Your task to perform on an android device: turn off notifications in google photos Image 0: 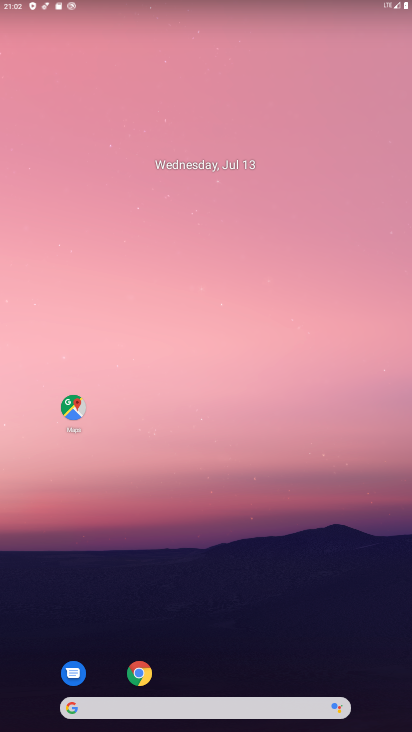
Step 0: drag from (188, 689) to (177, 82)
Your task to perform on an android device: turn off notifications in google photos Image 1: 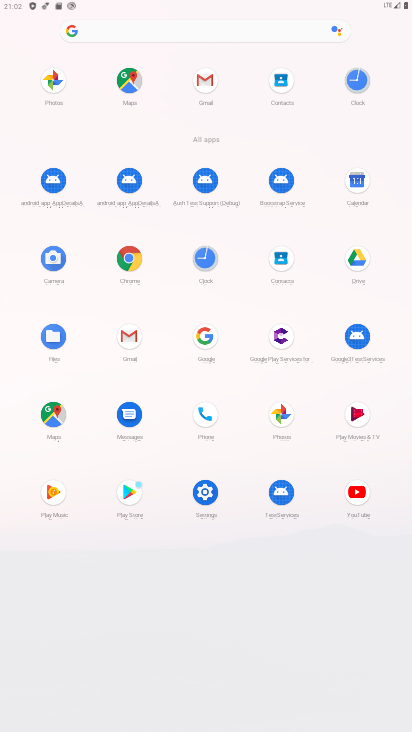
Step 1: click (208, 488)
Your task to perform on an android device: turn off notifications in google photos Image 2: 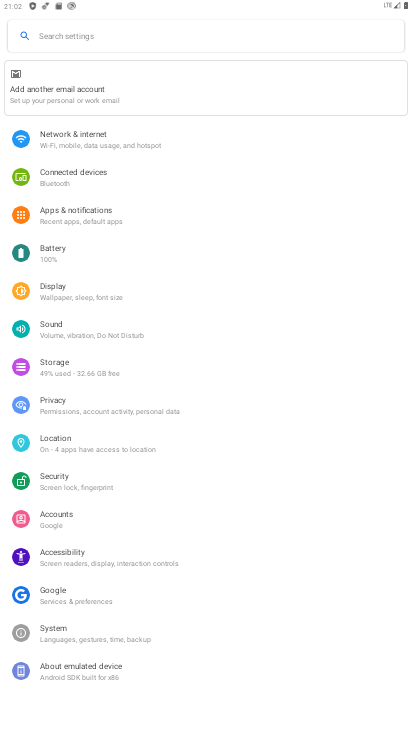
Step 2: click (194, 403)
Your task to perform on an android device: turn off notifications in google photos Image 3: 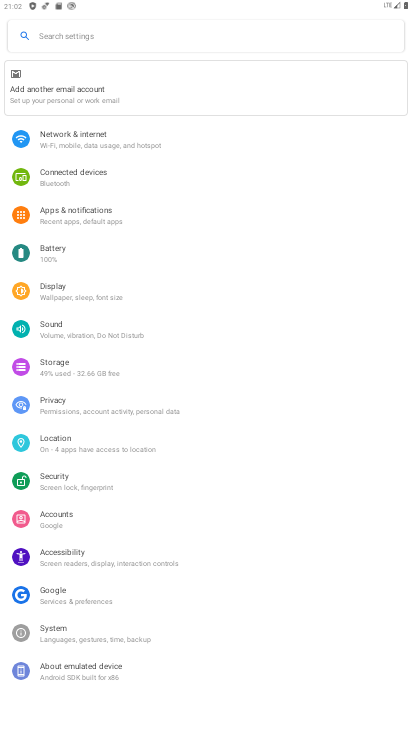
Step 3: drag from (160, 620) to (245, 290)
Your task to perform on an android device: turn off notifications in google photos Image 4: 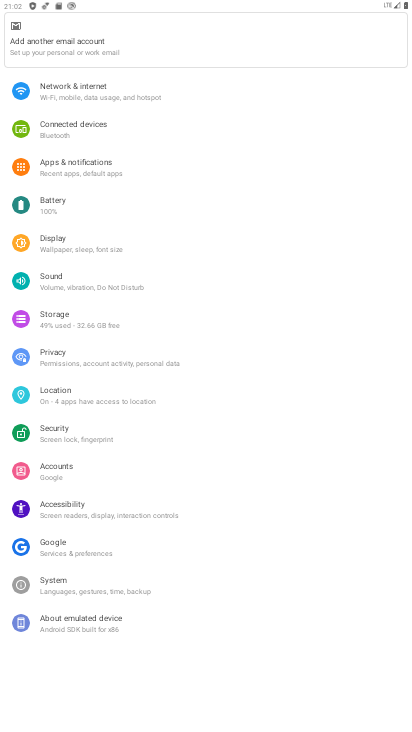
Step 4: drag from (192, 251) to (277, 716)
Your task to perform on an android device: turn off notifications in google photos Image 5: 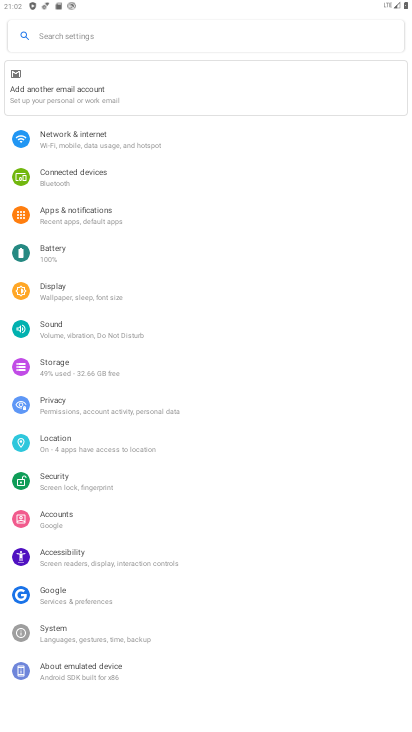
Step 5: drag from (200, 285) to (247, 683)
Your task to perform on an android device: turn off notifications in google photos Image 6: 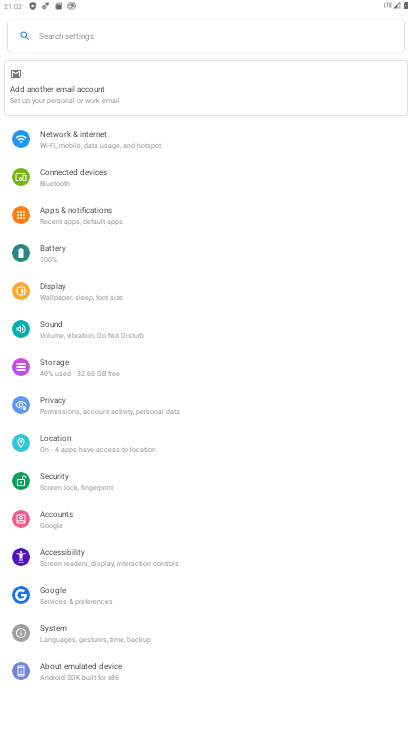
Step 6: press home button
Your task to perform on an android device: turn off notifications in google photos Image 7: 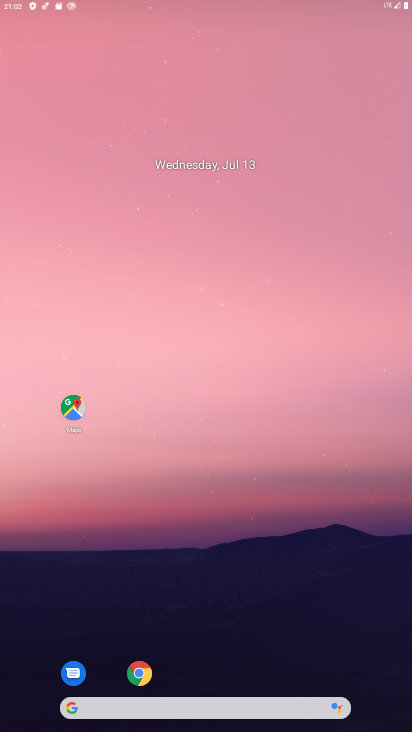
Step 7: drag from (226, 580) to (330, 193)
Your task to perform on an android device: turn off notifications in google photos Image 8: 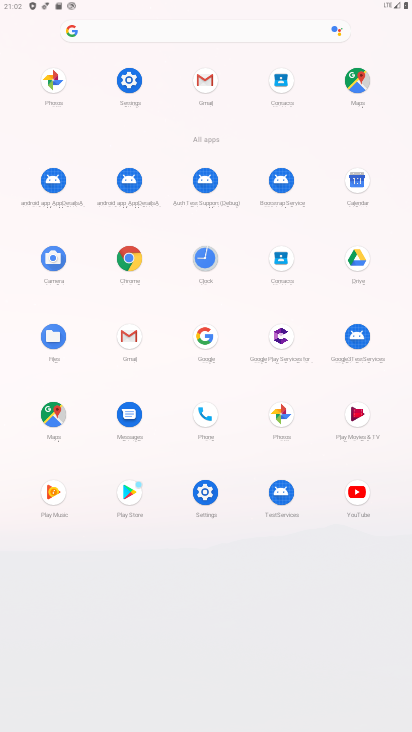
Step 8: click (277, 414)
Your task to perform on an android device: turn off notifications in google photos Image 9: 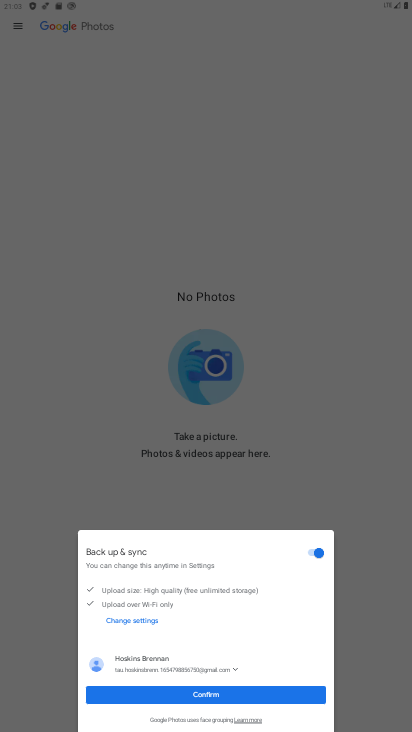
Step 9: click (198, 701)
Your task to perform on an android device: turn off notifications in google photos Image 10: 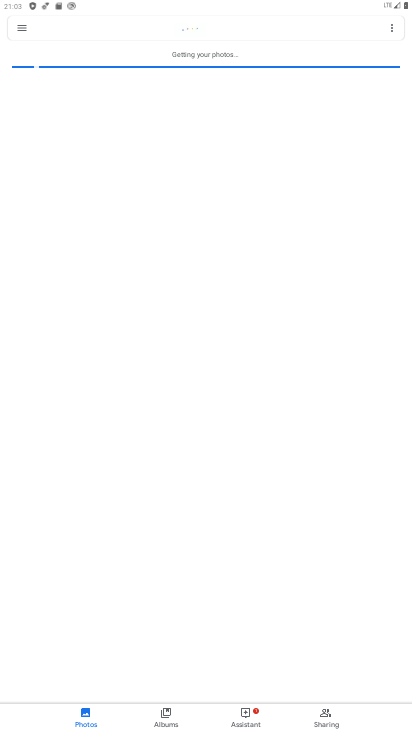
Step 10: click (25, 24)
Your task to perform on an android device: turn off notifications in google photos Image 11: 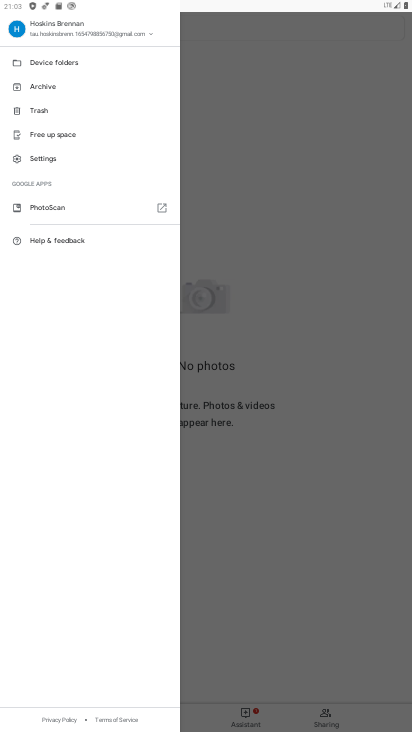
Step 11: click (50, 156)
Your task to perform on an android device: turn off notifications in google photos Image 12: 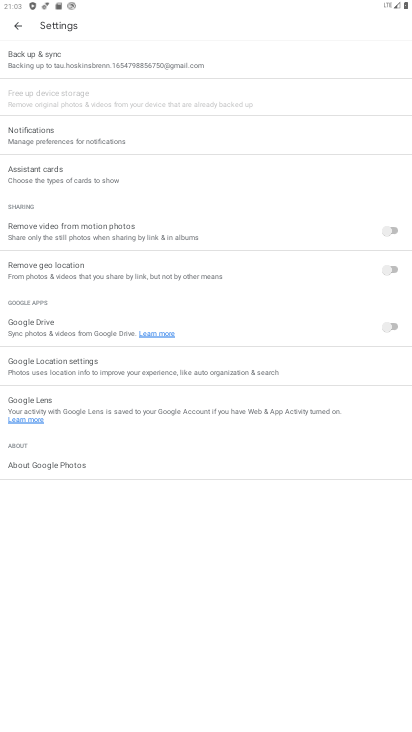
Step 12: drag from (189, 465) to (213, 247)
Your task to perform on an android device: turn off notifications in google photos Image 13: 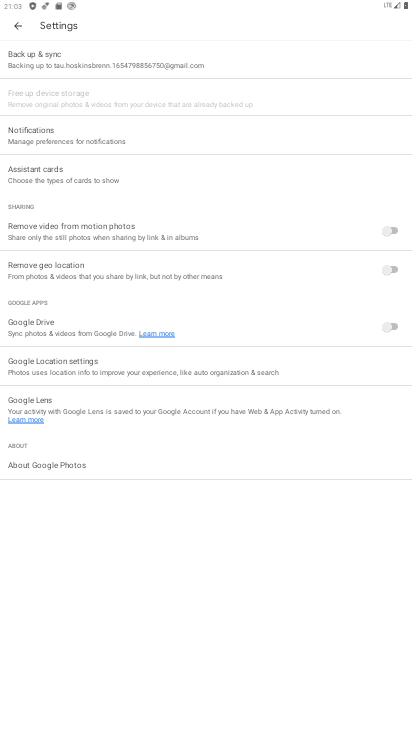
Step 13: drag from (175, 168) to (222, 540)
Your task to perform on an android device: turn off notifications in google photos Image 14: 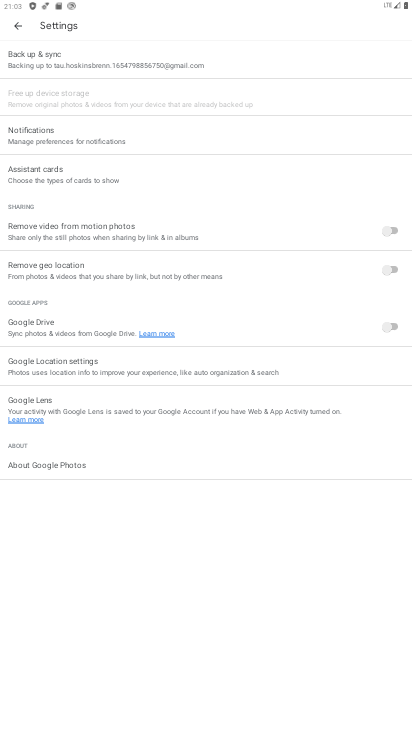
Step 14: drag from (179, 357) to (187, 282)
Your task to perform on an android device: turn off notifications in google photos Image 15: 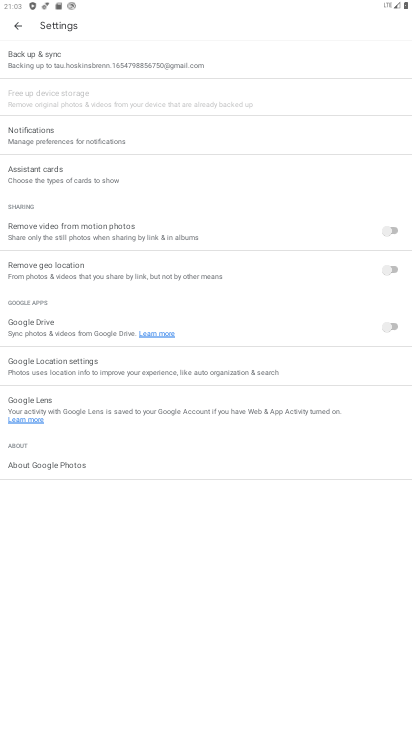
Step 15: drag from (194, 665) to (223, 281)
Your task to perform on an android device: turn off notifications in google photos Image 16: 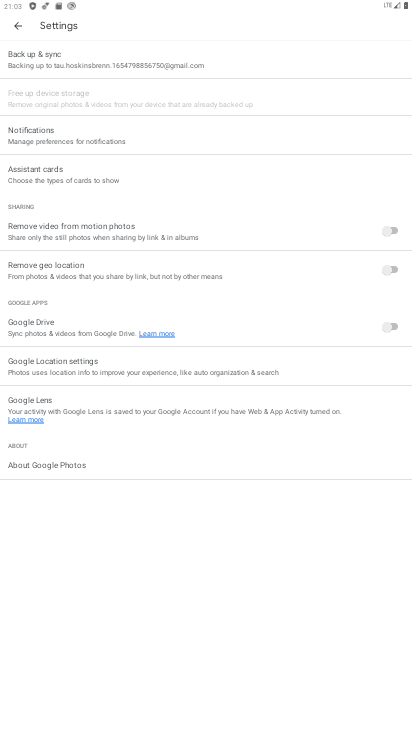
Step 16: drag from (181, 217) to (363, 663)
Your task to perform on an android device: turn off notifications in google photos Image 17: 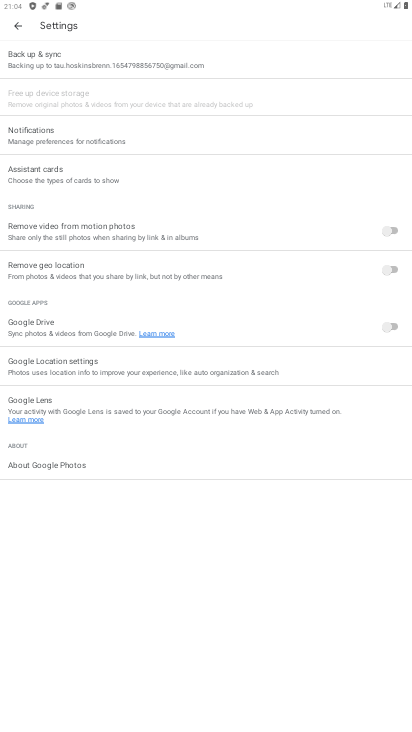
Step 17: press home button
Your task to perform on an android device: turn off notifications in google photos Image 18: 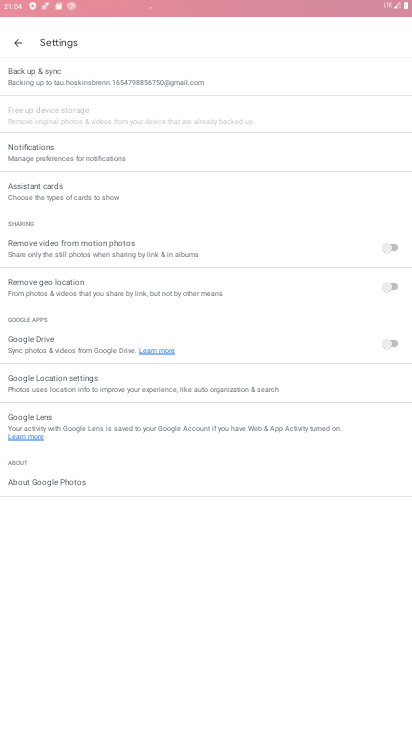
Step 18: drag from (159, 604) to (197, 166)
Your task to perform on an android device: turn off notifications in google photos Image 19: 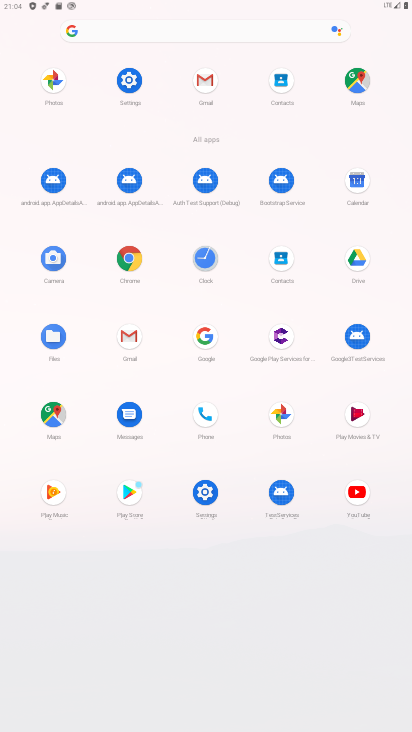
Step 19: click (282, 412)
Your task to perform on an android device: turn off notifications in google photos Image 20: 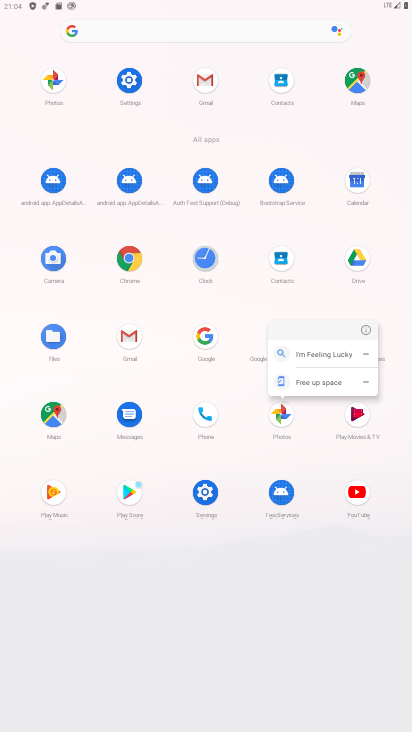
Step 20: click (368, 333)
Your task to perform on an android device: turn off notifications in google photos Image 21: 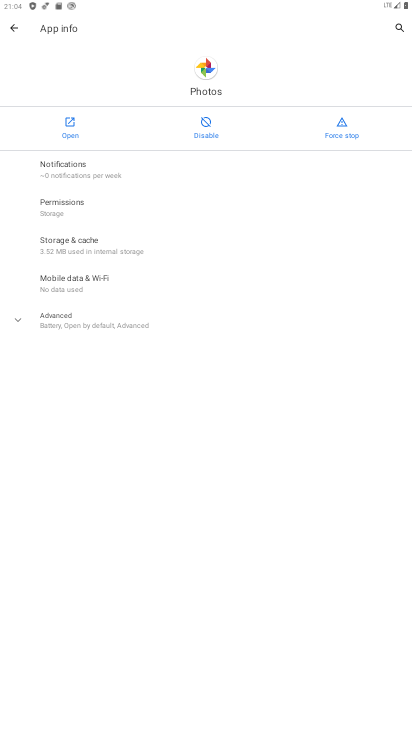
Step 21: click (74, 136)
Your task to perform on an android device: turn off notifications in google photos Image 22: 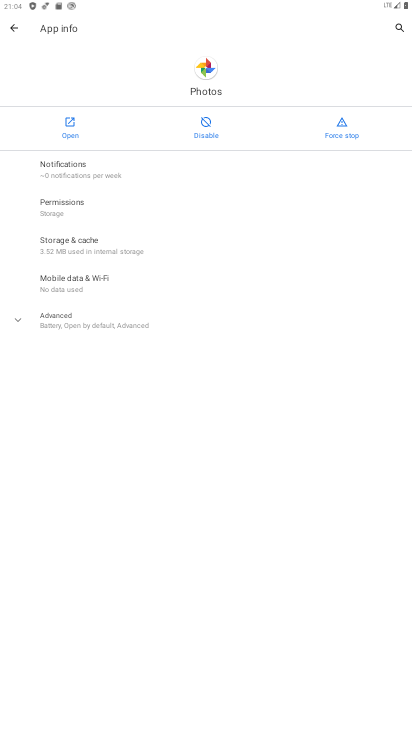
Step 22: click (76, 136)
Your task to perform on an android device: turn off notifications in google photos Image 23: 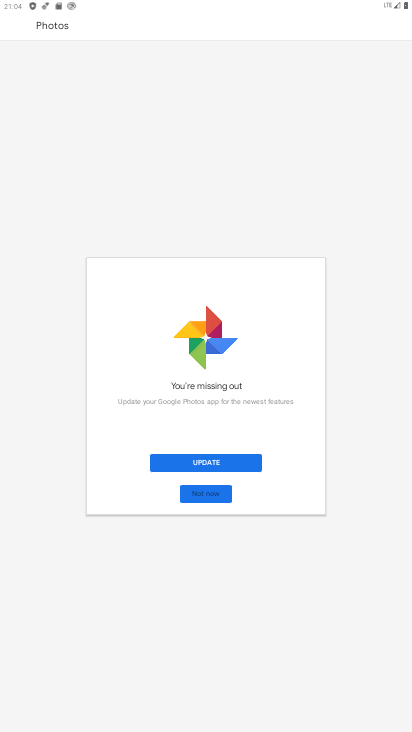
Step 23: click (201, 492)
Your task to perform on an android device: turn off notifications in google photos Image 24: 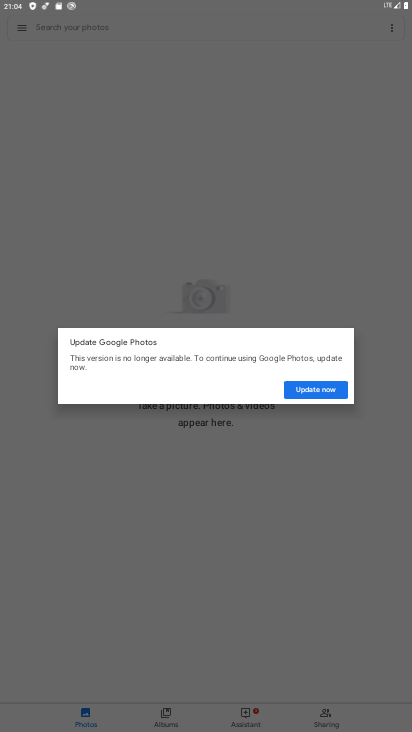
Step 24: task complete